Your task to perform on an android device: Go to Yahoo.com Image 0: 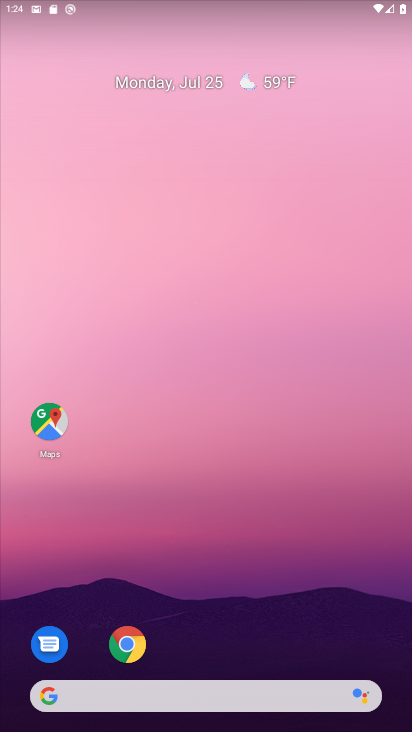
Step 0: click (125, 647)
Your task to perform on an android device: Go to Yahoo.com Image 1: 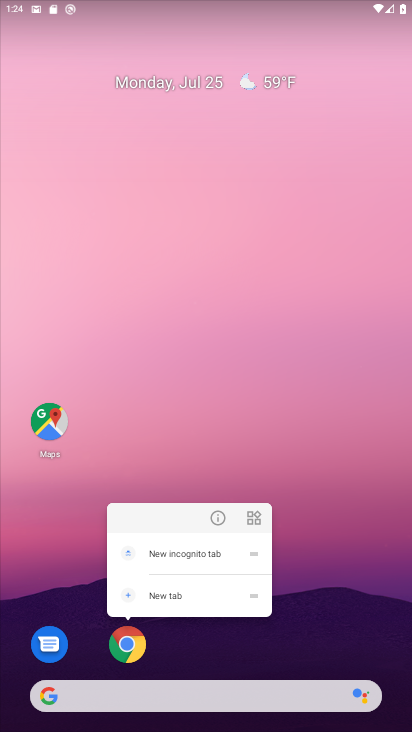
Step 1: click (125, 647)
Your task to perform on an android device: Go to Yahoo.com Image 2: 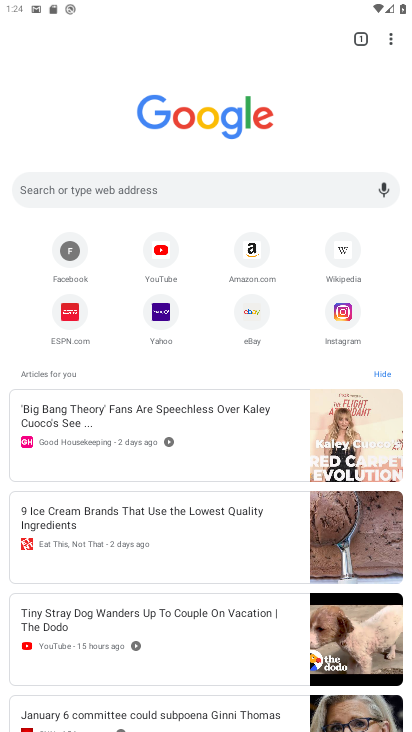
Step 2: click (135, 192)
Your task to perform on an android device: Go to Yahoo.com Image 3: 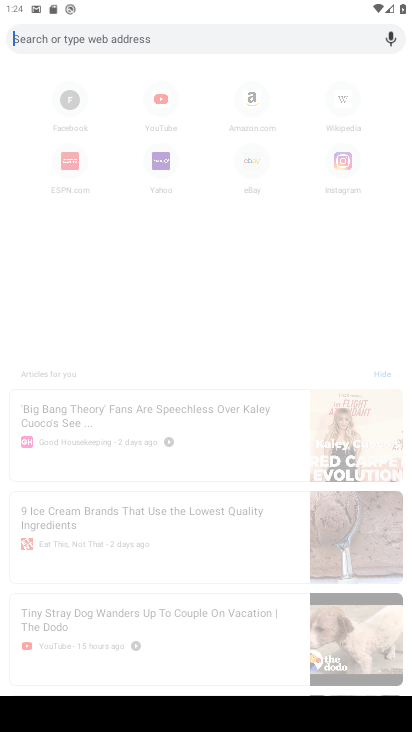
Step 3: type "Yahoo.com"
Your task to perform on an android device: Go to Yahoo.com Image 4: 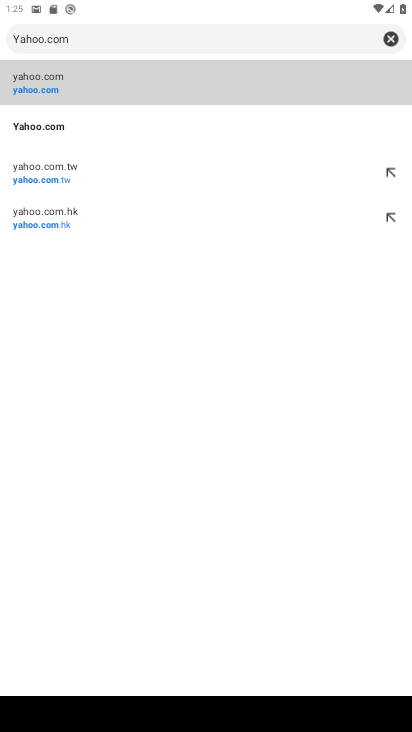
Step 4: click (39, 122)
Your task to perform on an android device: Go to Yahoo.com Image 5: 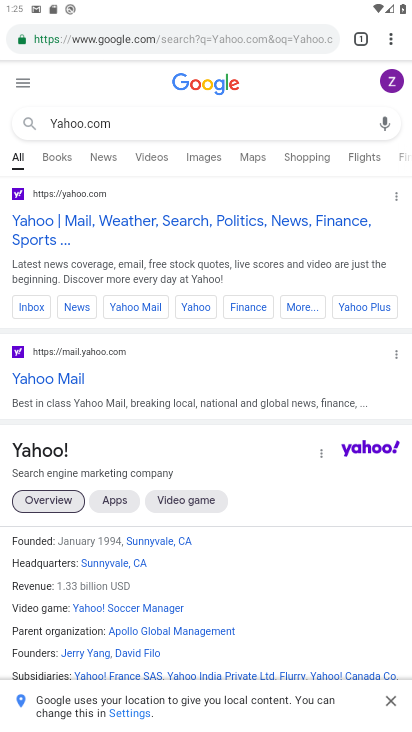
Step 5: task complete